Your task to perform on an android device: Search for seafood restaurants on Google Maps Image 0: 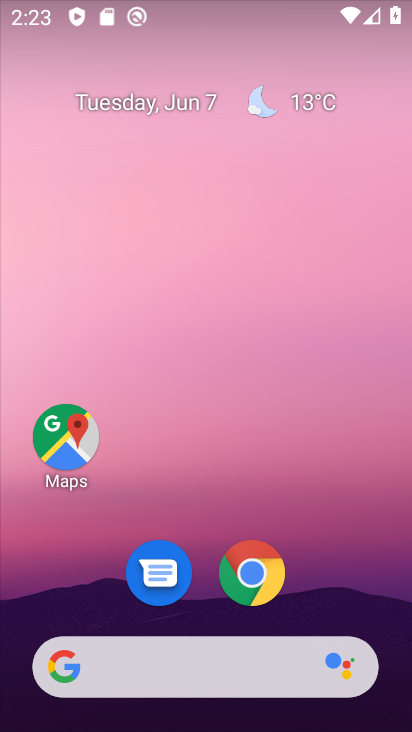
Step 0: click (63, 430)
Your task to perform on an android device: Search for seafood restaurants on Google Maps Image 1: 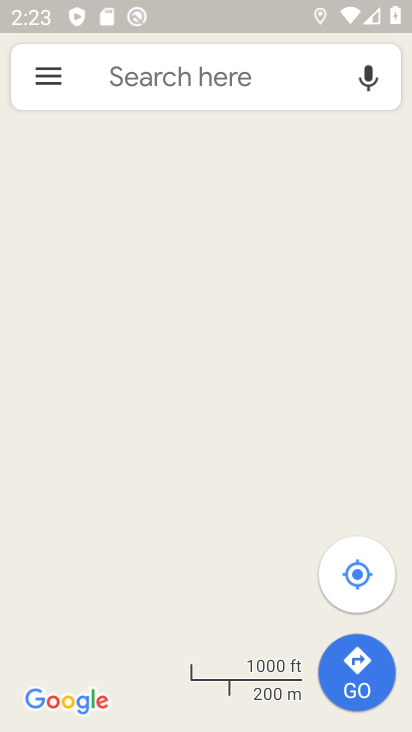
Step 1: click (192, 81)
Your task to perform on an android device: Search for seafood restaurants on Google Maps Image 2: 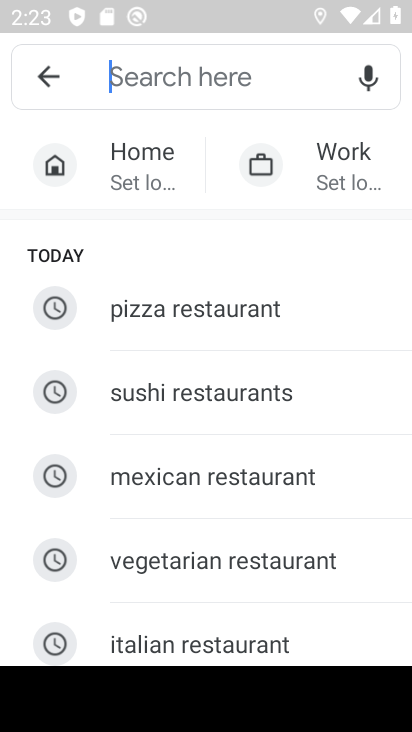
Step 2: type "seafood restaurants"
Your task to perform on an android device: Search for seafood restaurants on Google Maps Image 3: 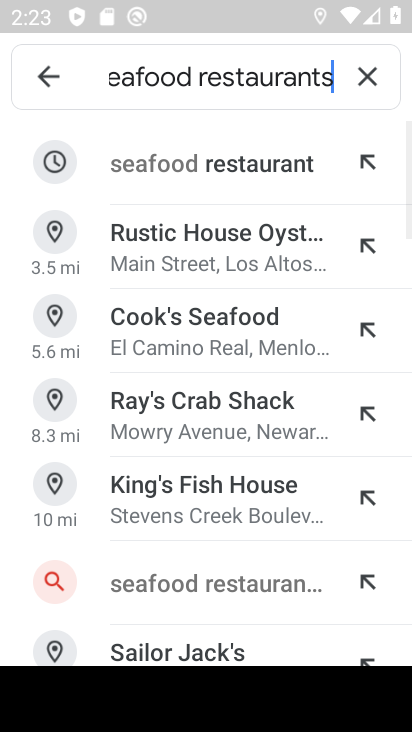
Step 3: click (217, 163)
Your task to perform on an android device: Search for seafood restaurants on Google Maps Image 4: 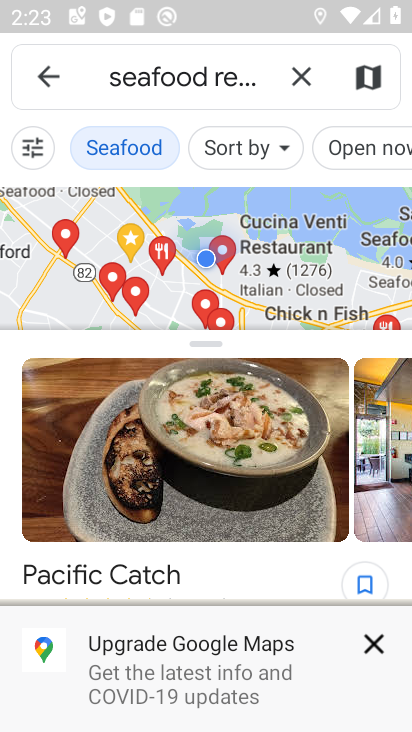
Step 4: task complete